Your task to perform on an android device: open app "Mercado Libre" (install if not already installed) and go to login screen Image 0: 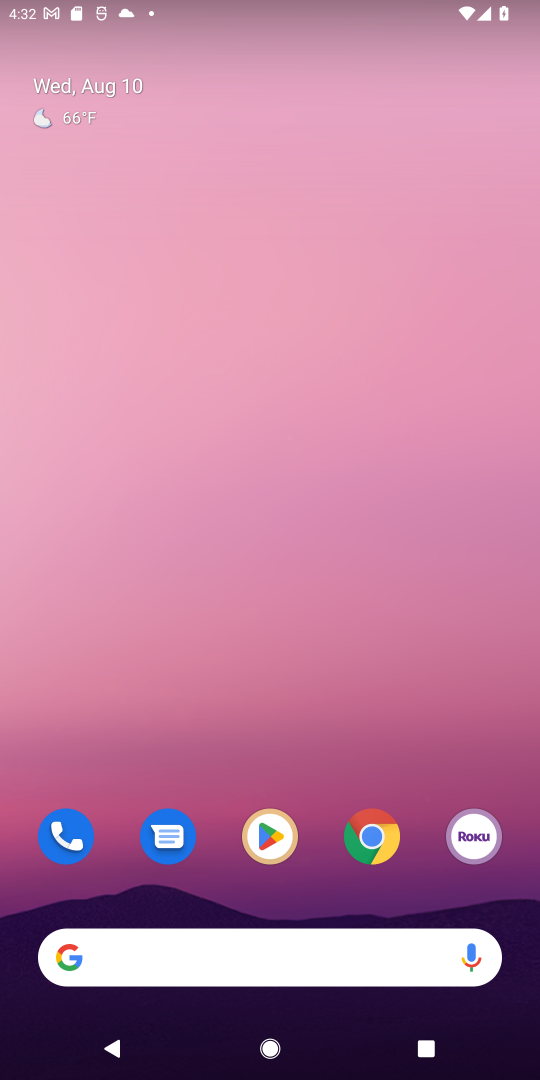
Step 0: drag from (211, 975) to (235, 399)
Your task to perform on an android device: open app "Mercado Libre" (install if not already installed) and go to login screen Image 1: 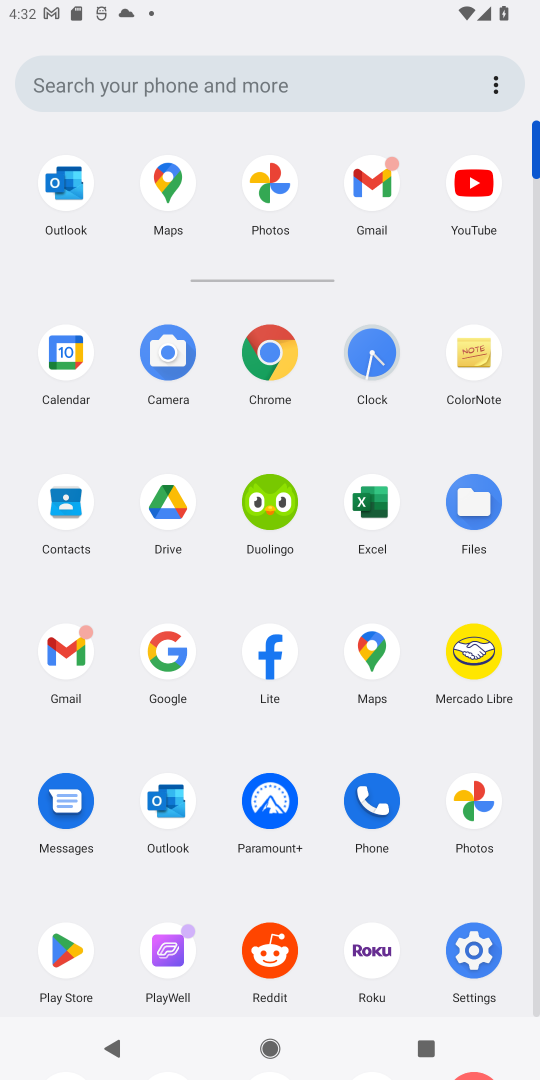
Step 1: drag from (109, 826) to (153, 452)
Your task to perform on an android device: open app "Mercado Libre" (install if not already installed) and go to login screen Image 2: 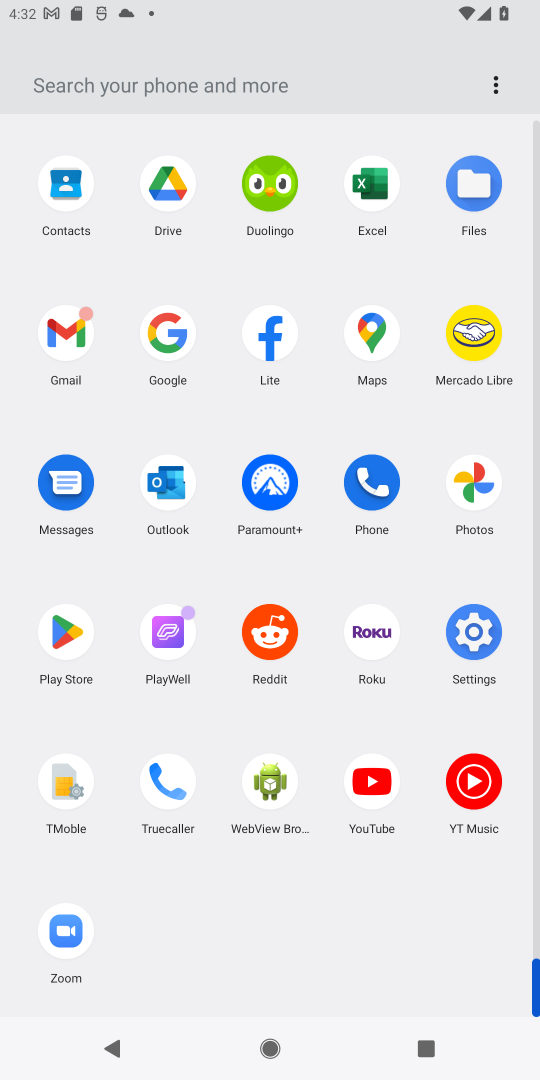
Step 2: click (59, 621)
Your task to perform on an android device: open app "Mercado Libre" (install if not already installed) and go to login screen Image 3: 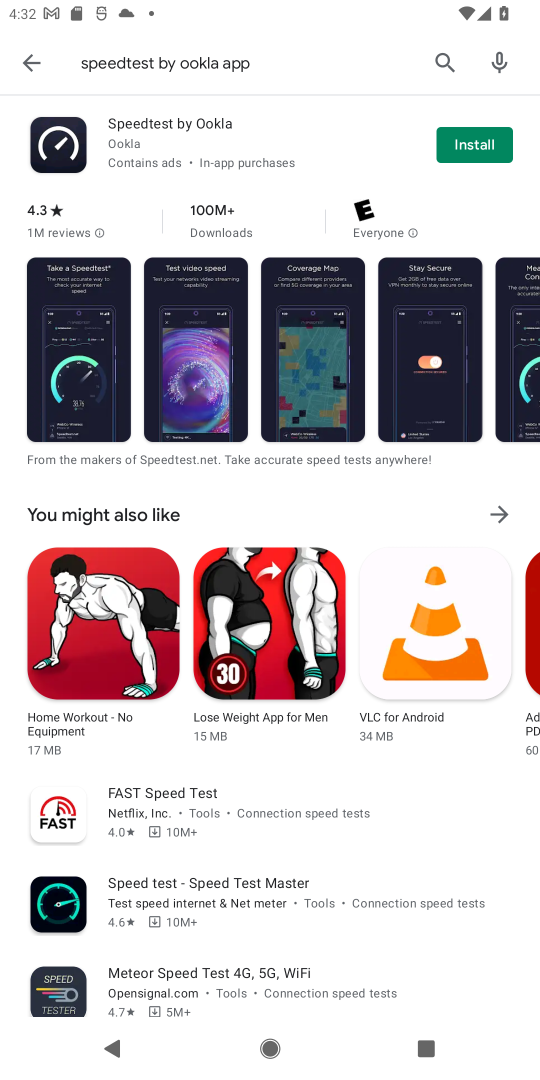
Step 3: click (30, 56)
Your task to perform on an android device: open app "Mercado Libre" (install if not already installed) and go to login screen Image 4: 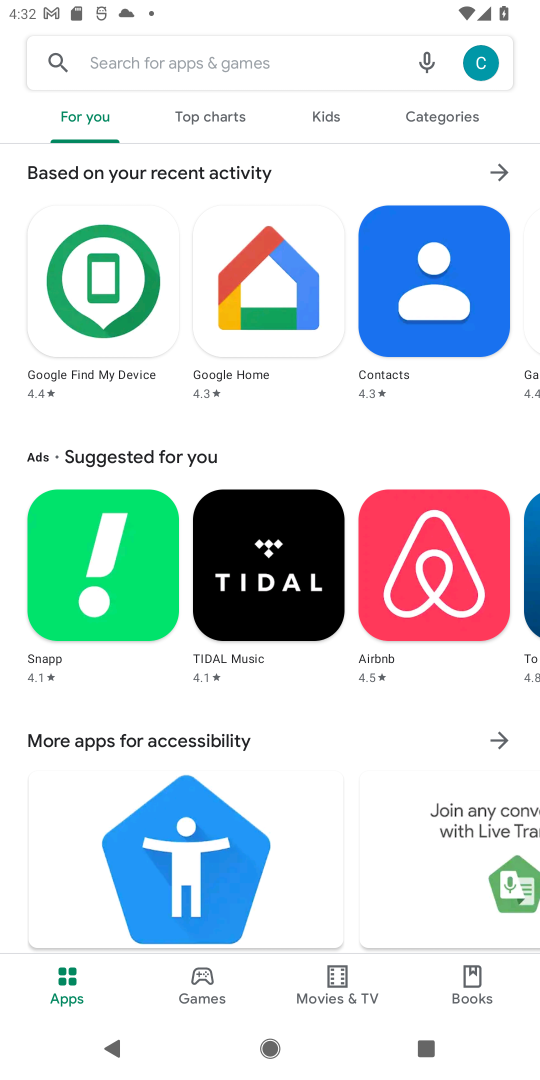
Step 4: click (253, 51)
Your task to perform on an android device: open app "Mercado Libre" (install if not already installed) and go to login screen Image 5: 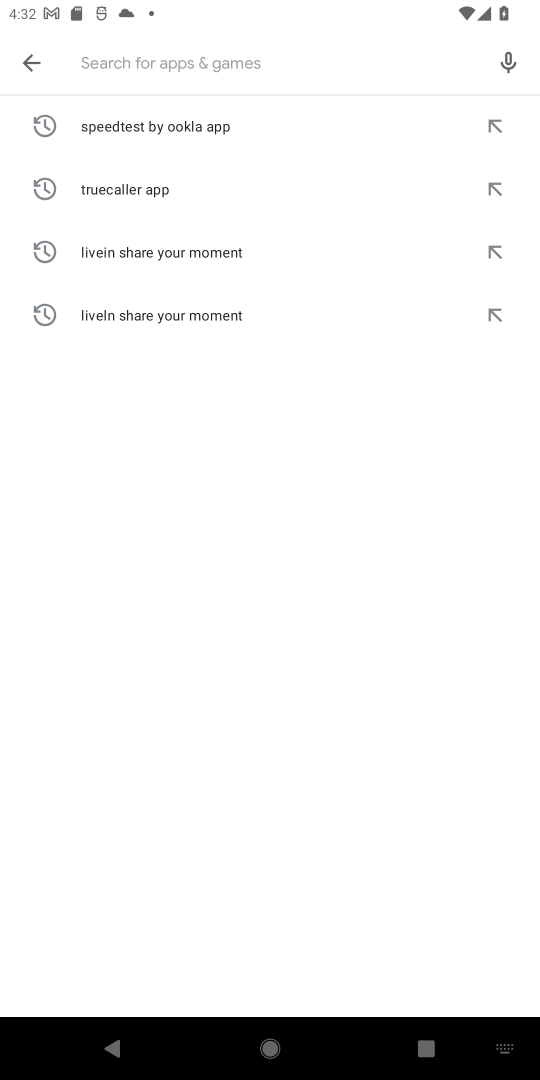
Step 5: type "Mercado Libre "
Your task to perform on an android device: open app "Mercado Libre" (install if not already installed) and go to login screen Image 6: 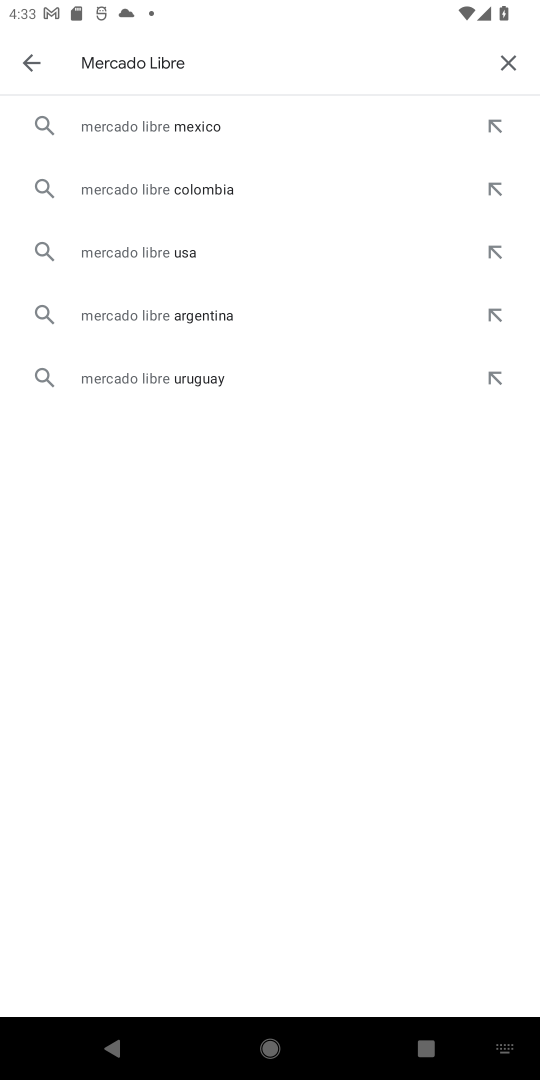
Step 6: click (125, 126)
Your task to perform on an android device: open app "Mercado Libre" (install if not already installed) and go to login screen Image 7: 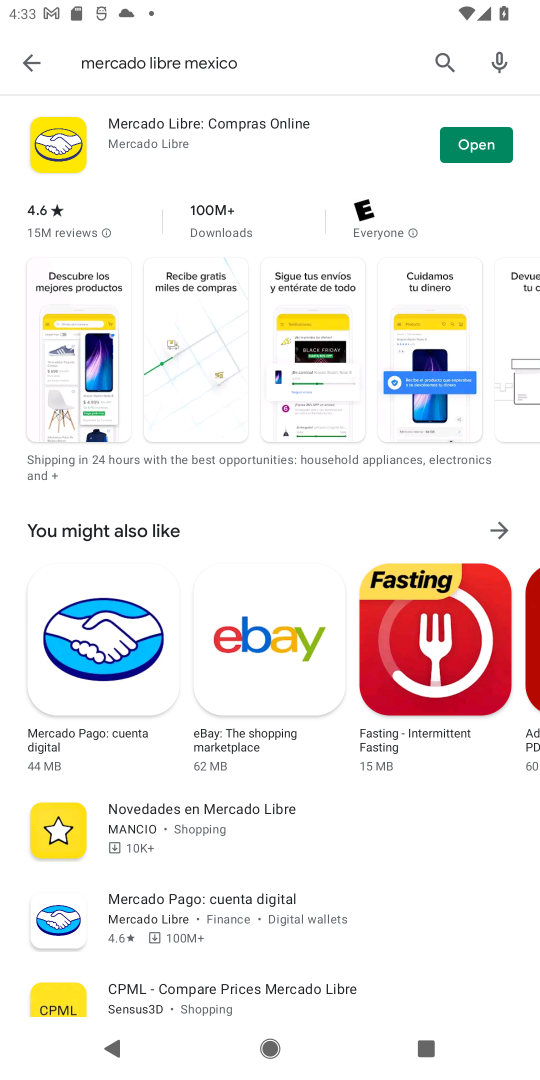
Step 7: click (480, 140)
Your task to perform on an android device: open app "Mercado Libre" (install if not already installed) and go to login screen Image 8: 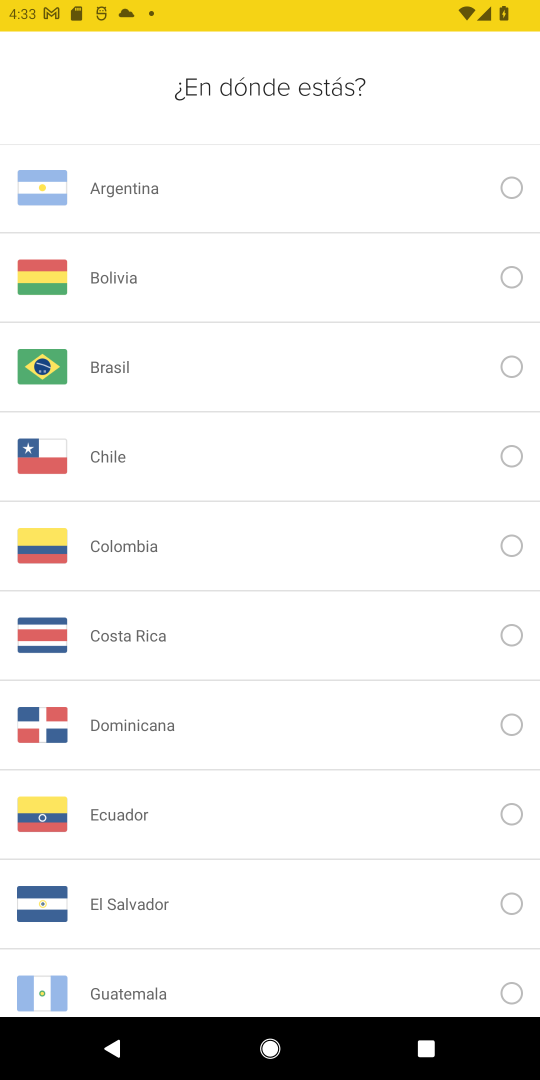
Step 8: drag from (183, 969) to (307, 175)
Your task to perform on an android device: open app "Mercado Libre" (install if not already installed) and go to login screen Image 9: 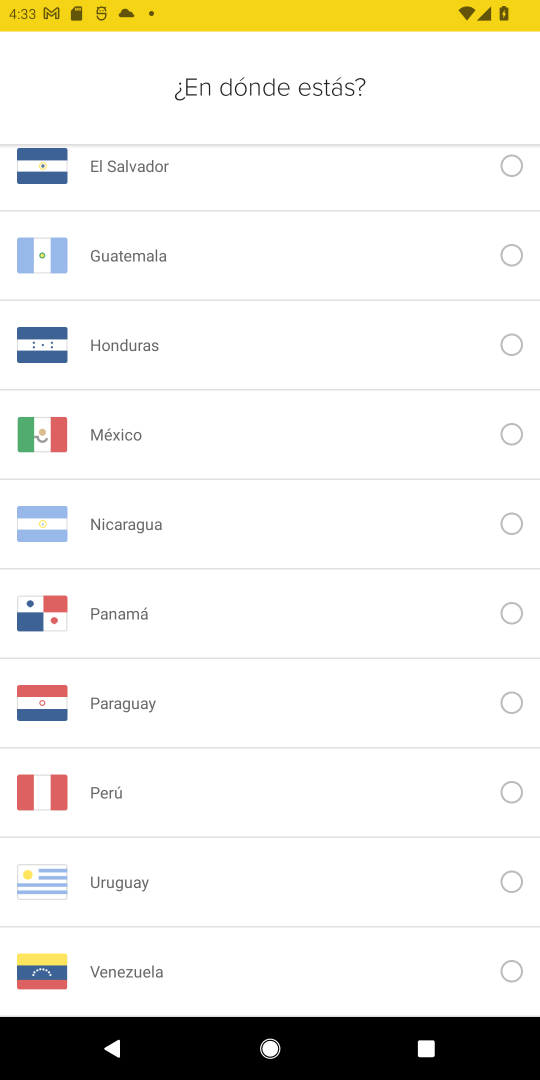
Step 9: drag from (83, 930) to (200, 966)
Your task to perform on an android device: open app "Mercado Libre" (install if not already installed) and go to login screen Image 10: 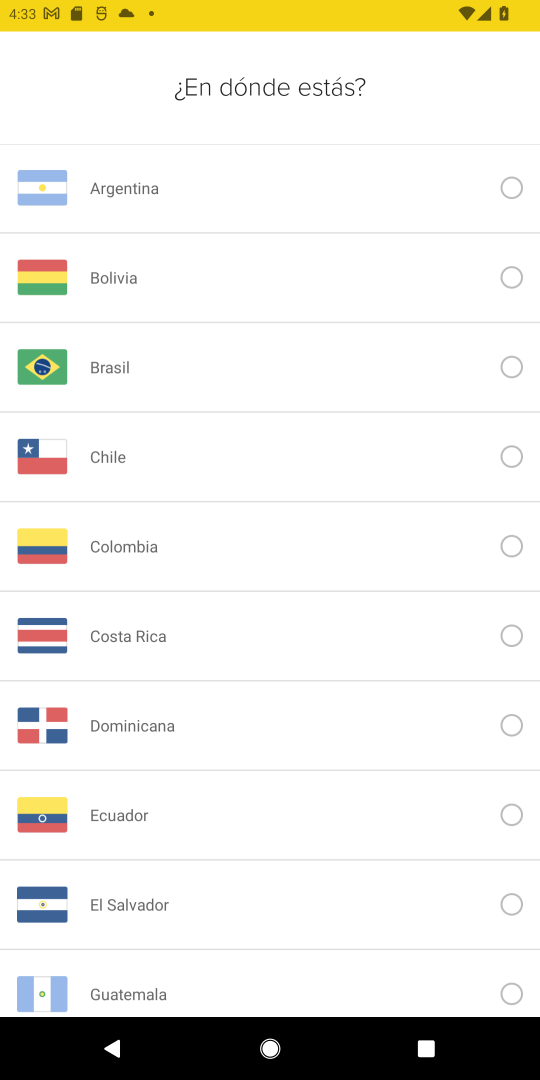
Step 10: drag from (203, 118) to (146, 1004)
Your task to perform on an android device: open app "Mercado Libre" (install if not already installed) and go to login screen Image 11: 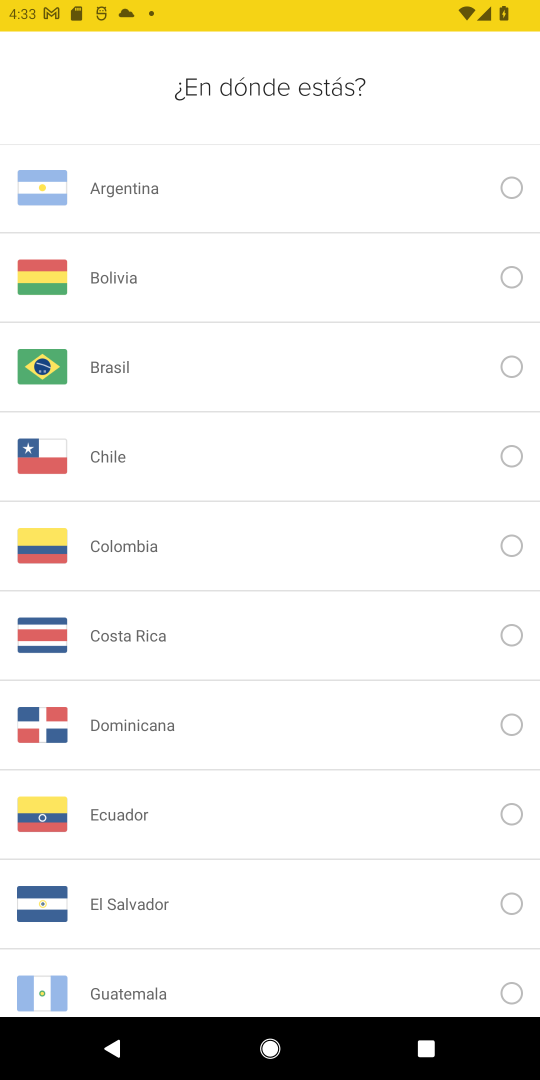
Step 11: click (490, 193)
Your task to perform on an android device: open app "Mercado Libre" (install if not already installed) and go to login screen Image 12: 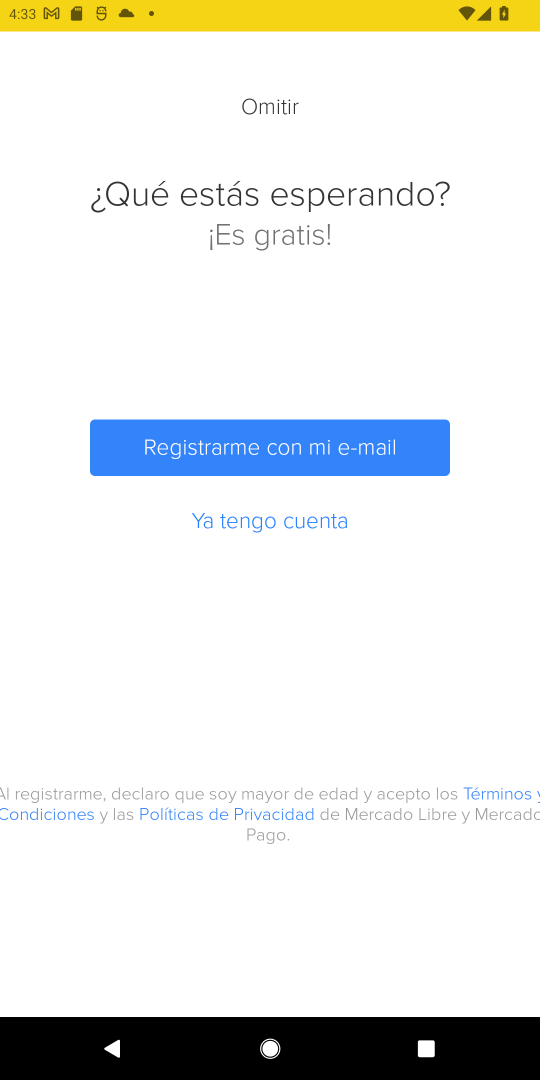
Step 12: task complete